Your task to perform on an android device: Turn off the flashlight Image 0: 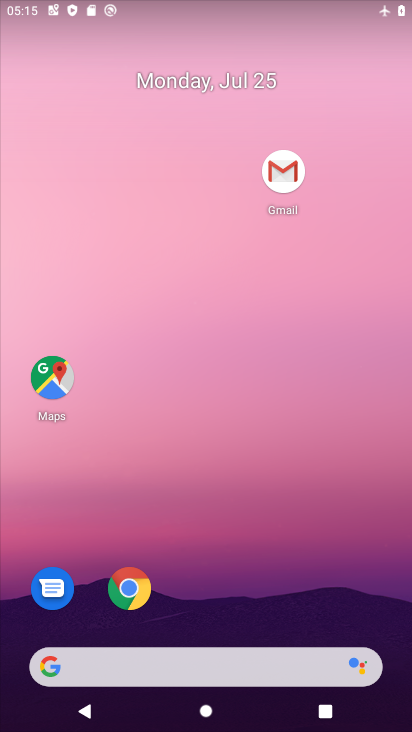
Step 0: drag from (304, 596) to (308, 14)
Your task to perform on an android device: Turn off the flashlight Image 1: 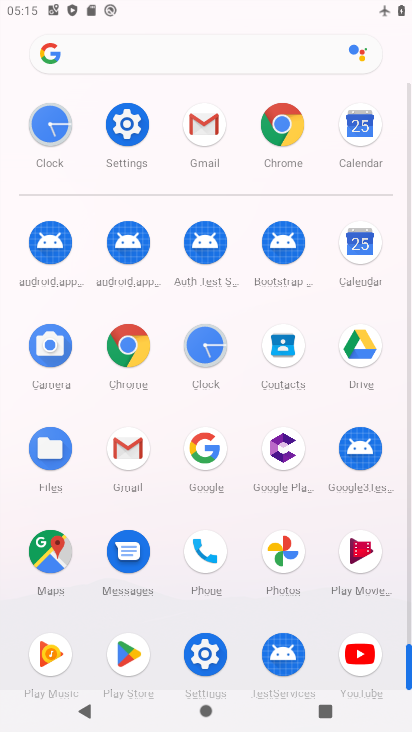
Step 1: click (138, 127)
Your task to perform on an android device: Turn off the flashlight Image 2: 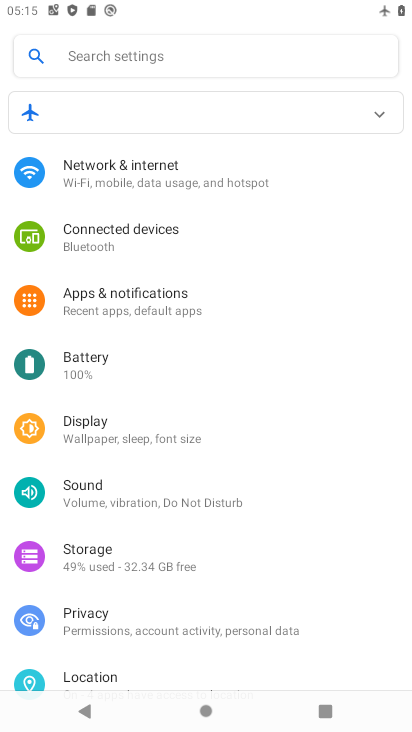
Step 2: click (99, 436)
Your task to perform on an android device: Turn off the flashlight Image 3: 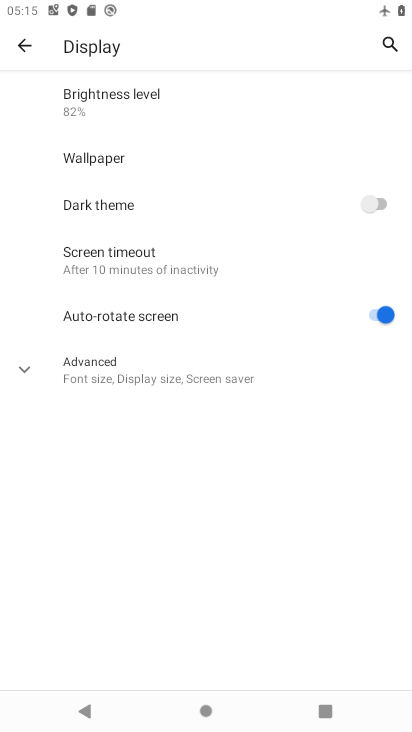
Step 3: task complete